Your task to perform on an android device: Clear all items from cart on bestbuy. Search for "corsair k70" on bestbuy, select the first entry, and add it to the cart. Image 0: 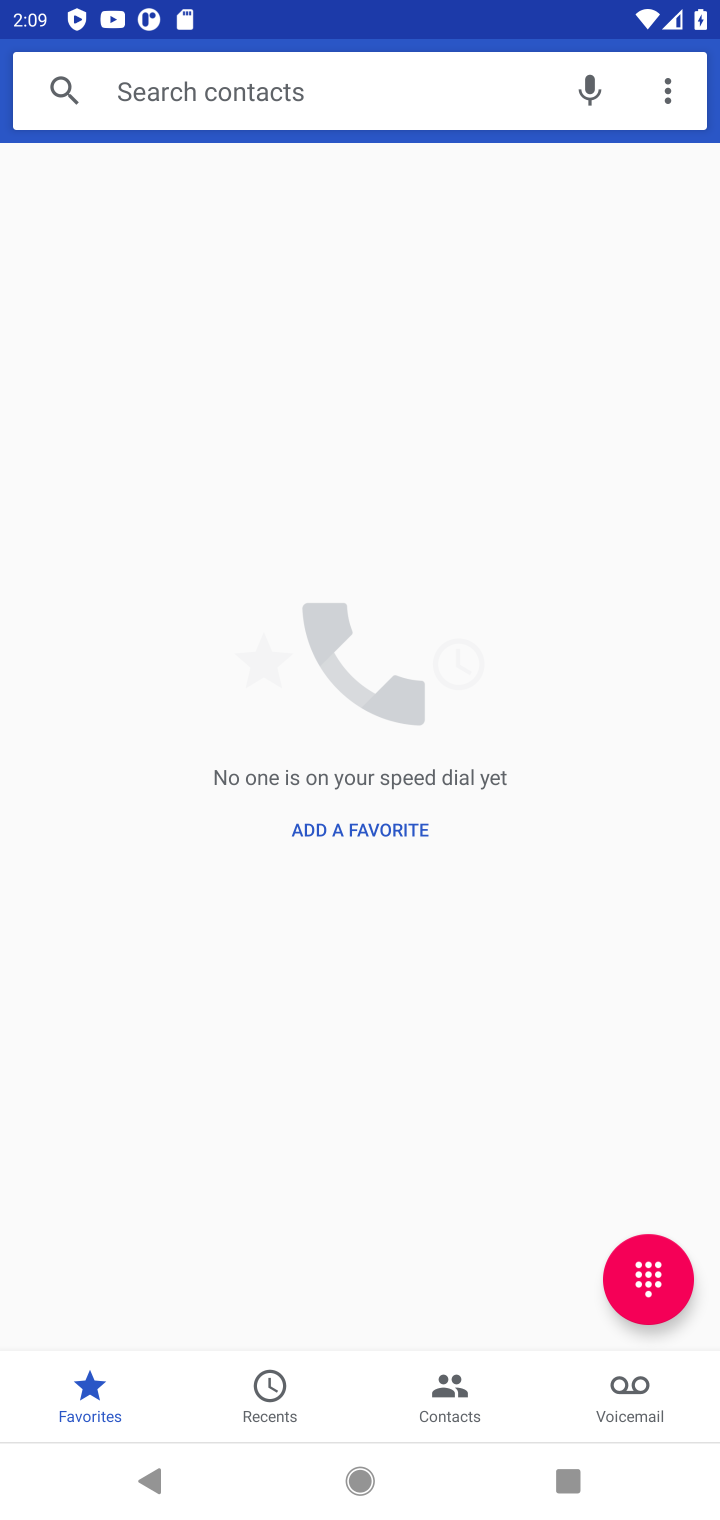
Step 0: press home button
Your task to perform on an android device: Clear all items from cart on bestbuy. Search for "corsair k70" on bestbuy, select the first entry, and add it to the cart. Image 1: 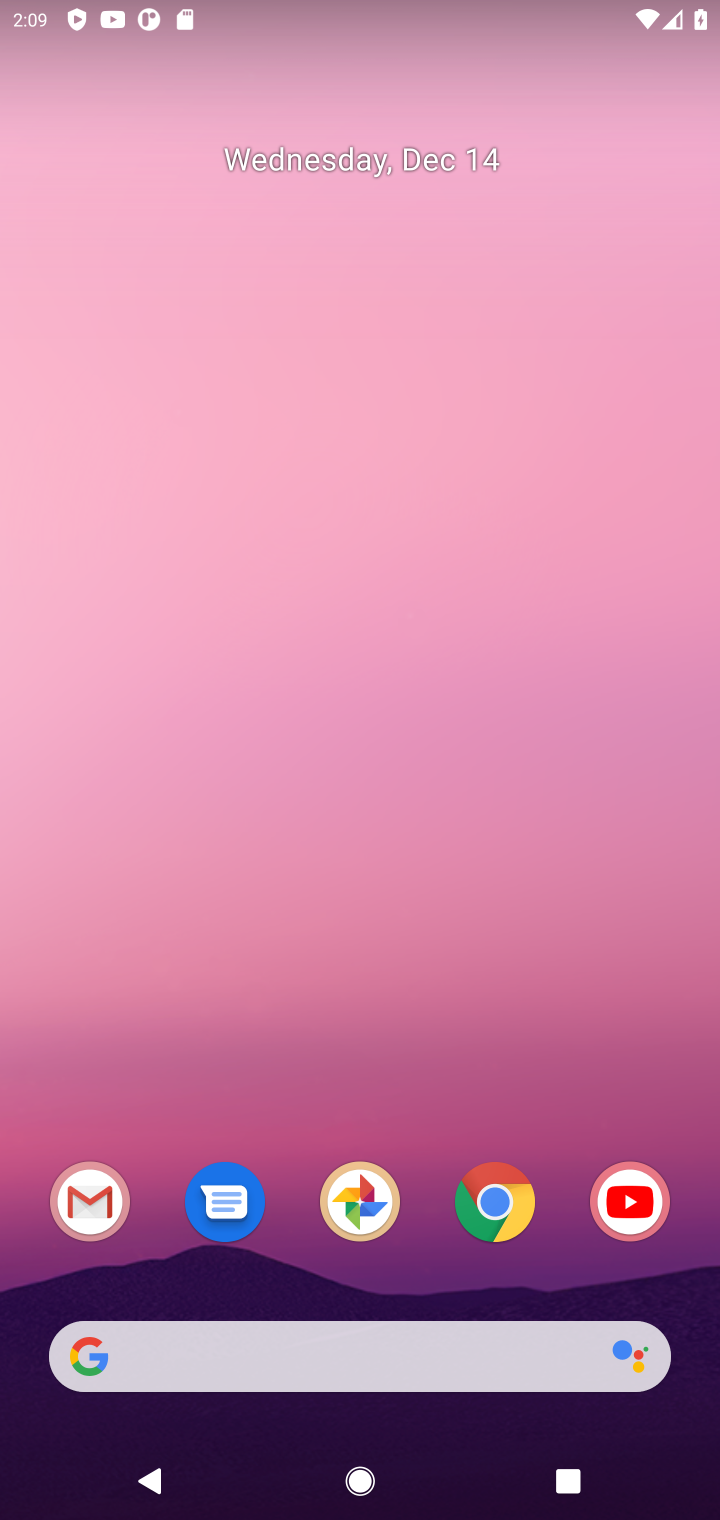
Step 1: click (486, 1187)
Your task to perform on an android device: Clear all items from cart on bestbuy. Search for "corsair k70" on bestbuy, select the first entry, and add it to the cart. Image 2: 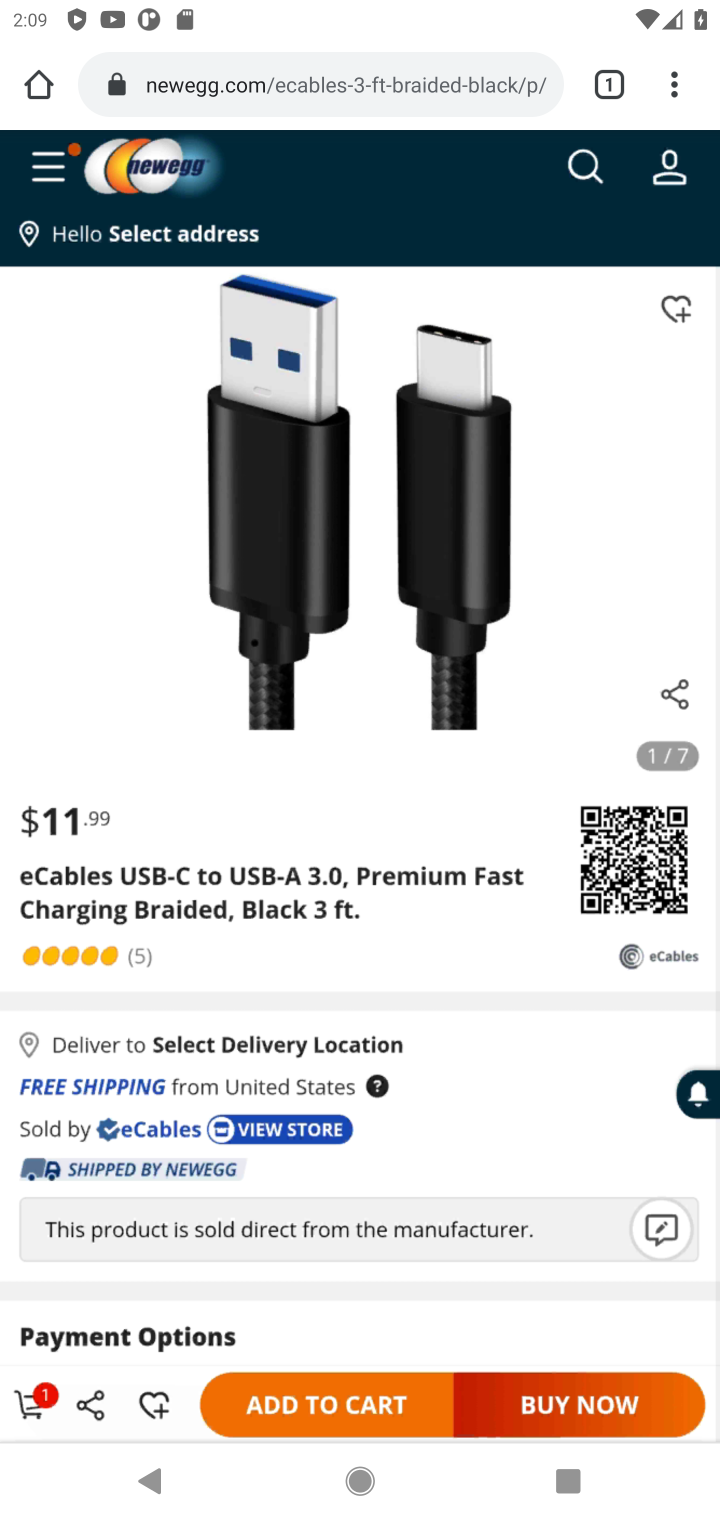
Step 2: click (327, 89)
Your task to perform on an android device: Clear all items from cart on bestbuy. Search for "corsair k70" on bestbuy, select the first entry, and add it to the cart. Image 3: 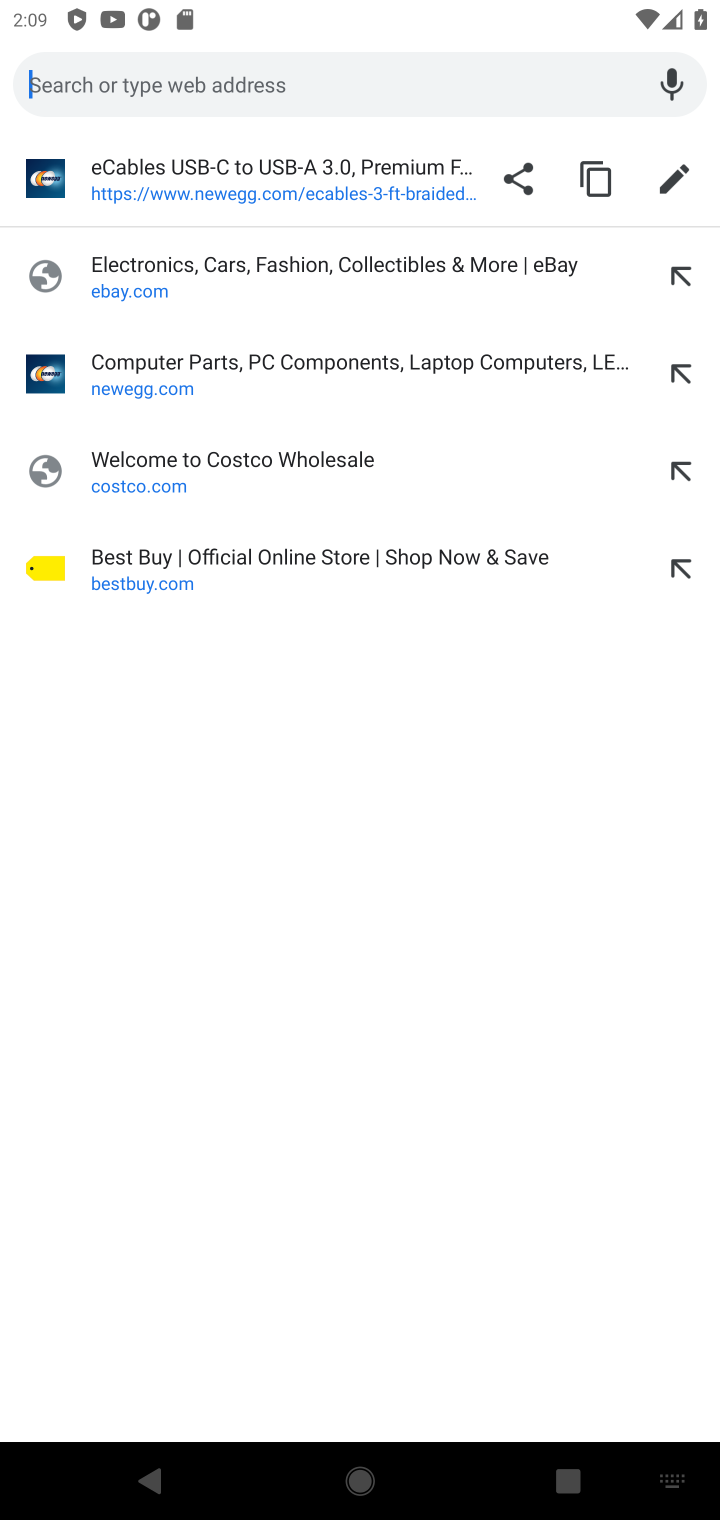
Step 3: click (194, 571)
Your task to perform on an android device: Clear all items from cart on bestbuy. Search for "corsair k70" on bestbuy, select the first entry, and add it to the cart. Image 4: 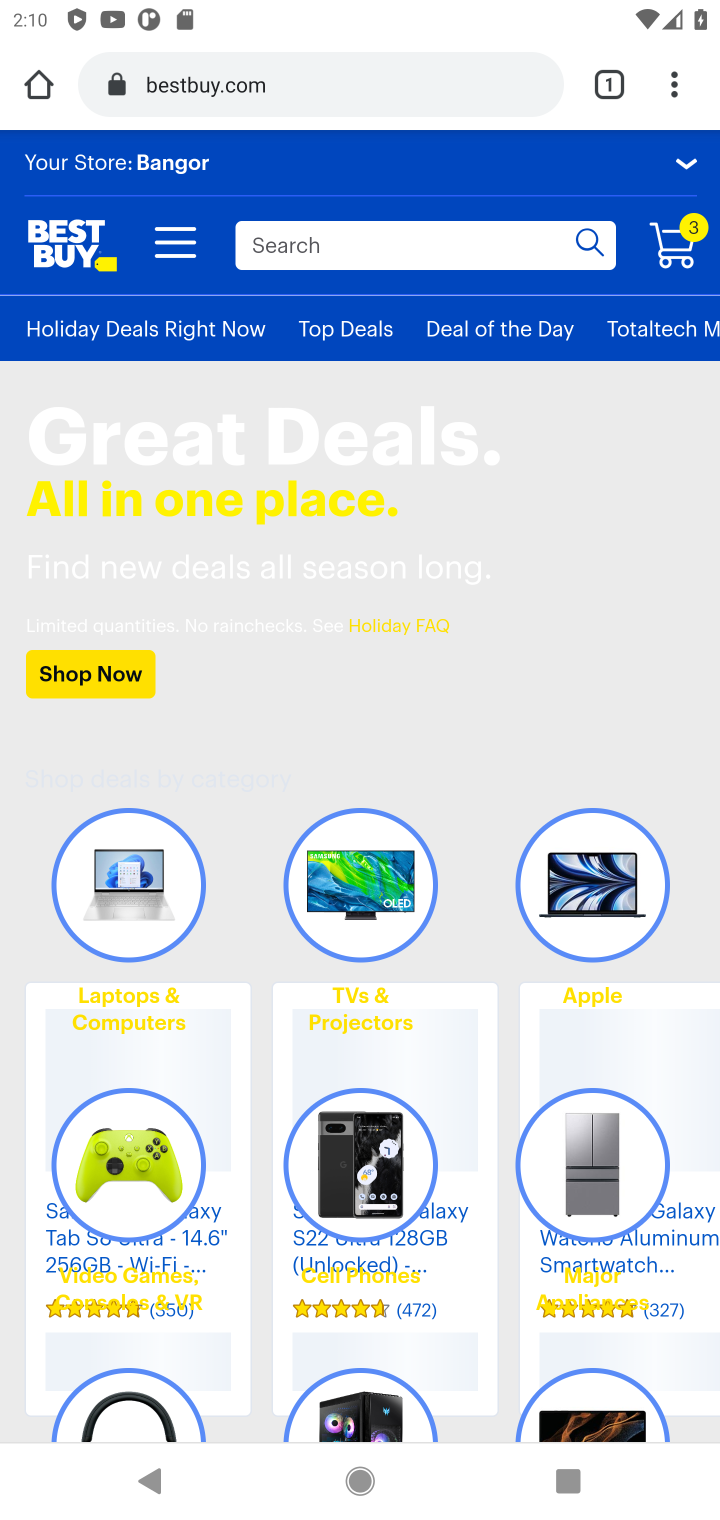
Step 4: click (672, 234)
Your task to perform on an android device: Clear all items from cart on bestbuy. Search for "corsair k70" on bestbuy, select the first entry, and add it to the cart. Image 5: 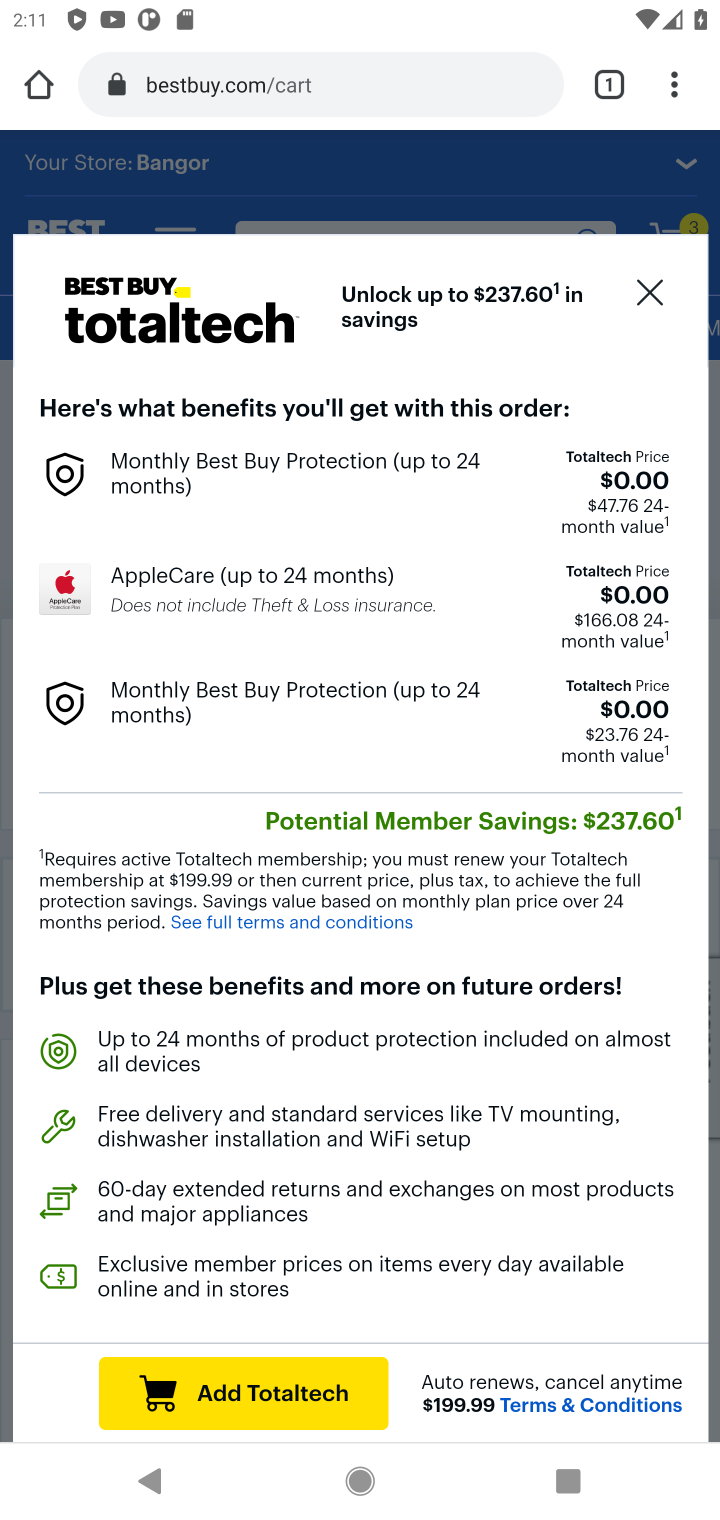
Step 5: click (649, 291)
Your task to perform on an android device: Clear all items from cart on bestbuy. Search for "corsair k70" on bestbuy, select the first entry, and add it to the cart. Image 6: 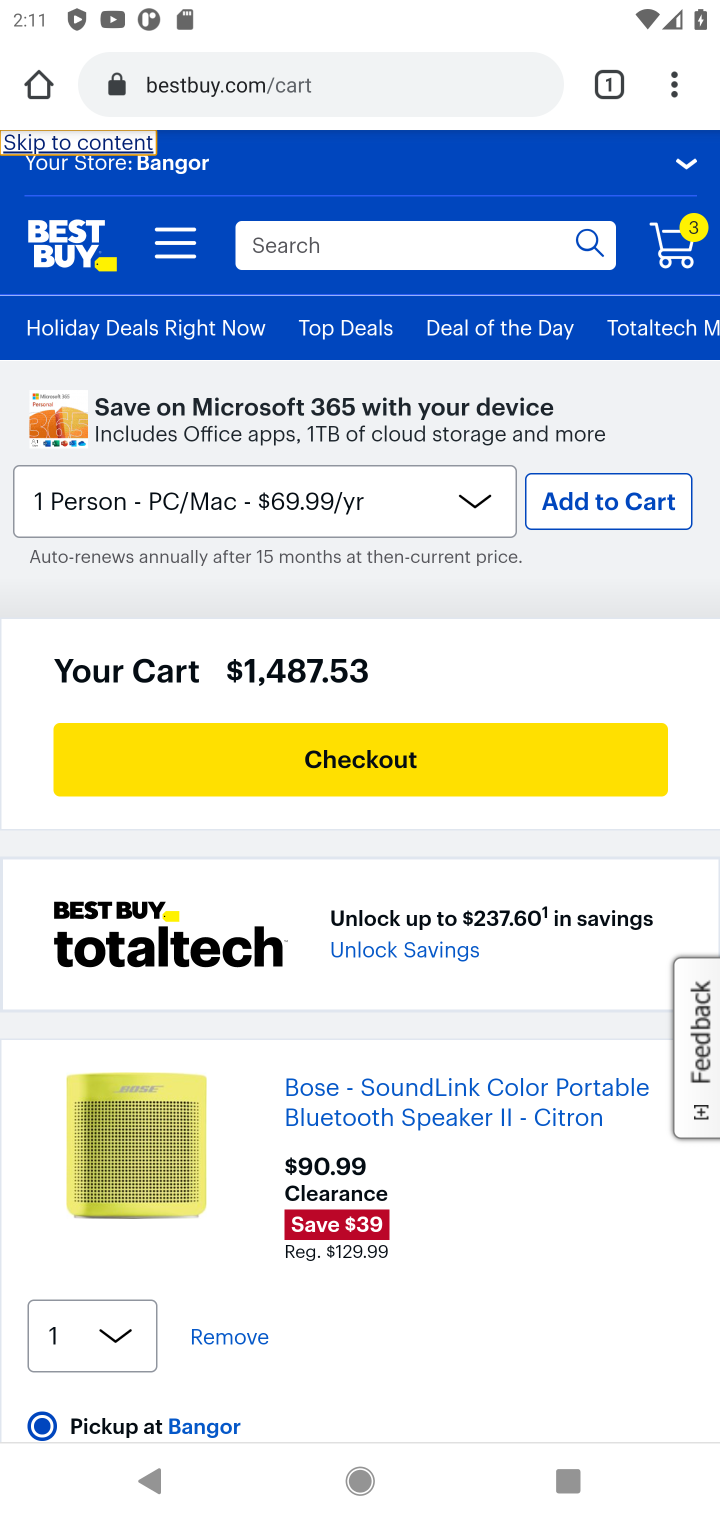
Step 6: click (239, 1334)
Your task to perform on an android device: Clear all items from cart on bestbuy. Search for "corsair k70" on bestbuy, select the first entry, and add it to the cart. Image 7: 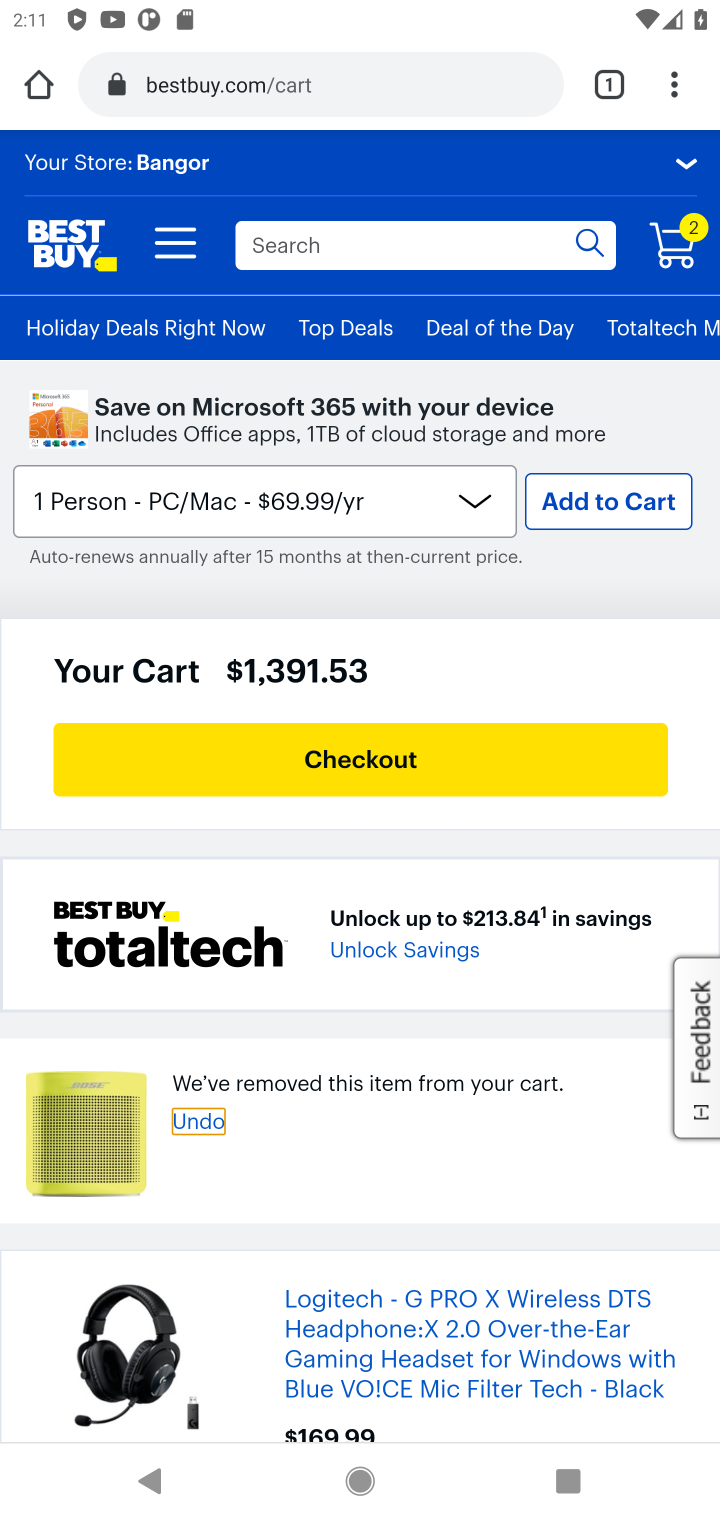
Step 7: drag from (464, 1114) to (399, 127)
Your task to perform on an android device: Clear all items from cart on bestbuy. Search for "corsair k70" on bestbuy, select the first entry, and add it to the cart. Image 8: 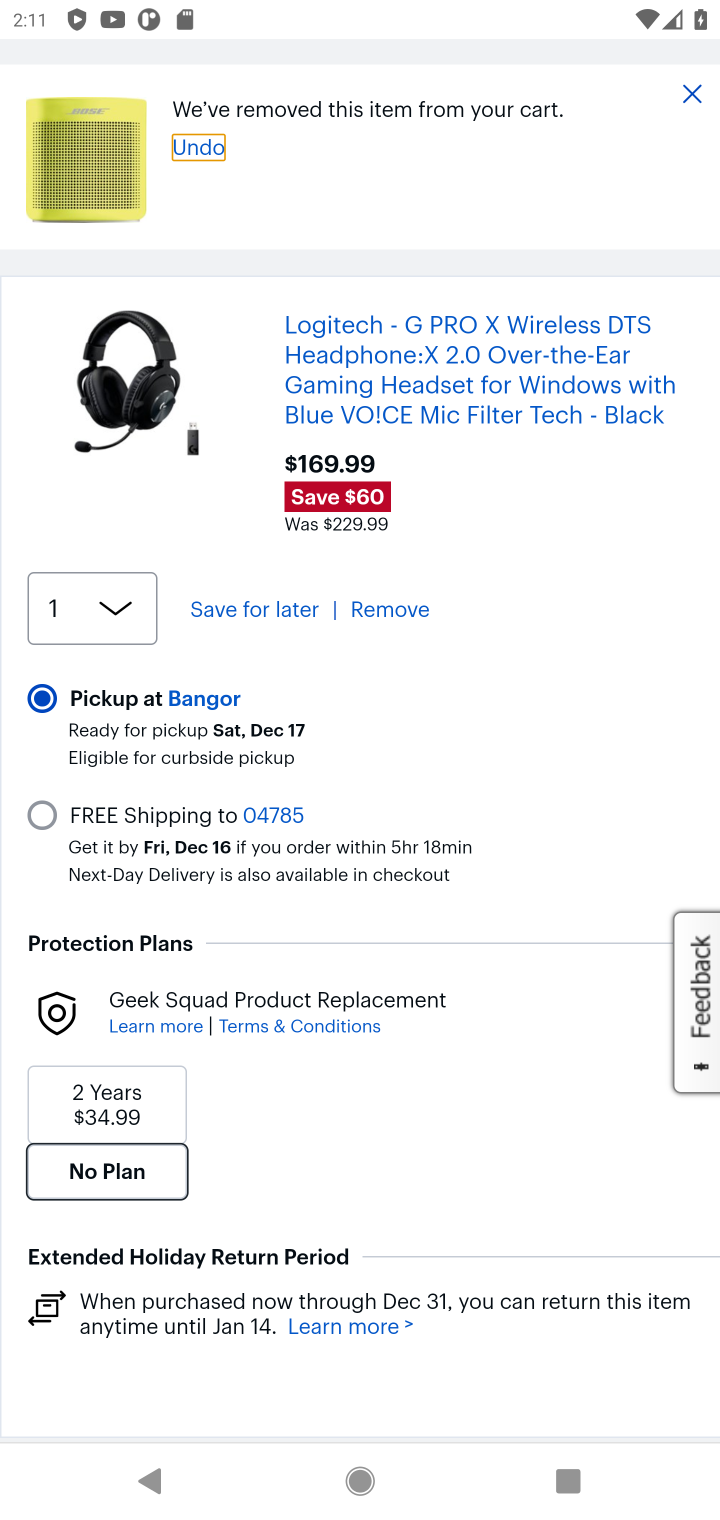
Step 8: click (380, 604)
Your task to perform on an android device: Clear all items from cart on bestbuy. Search for "corsair k70" on bestbuy, select the first entry, and add it to the cart. Image 9: 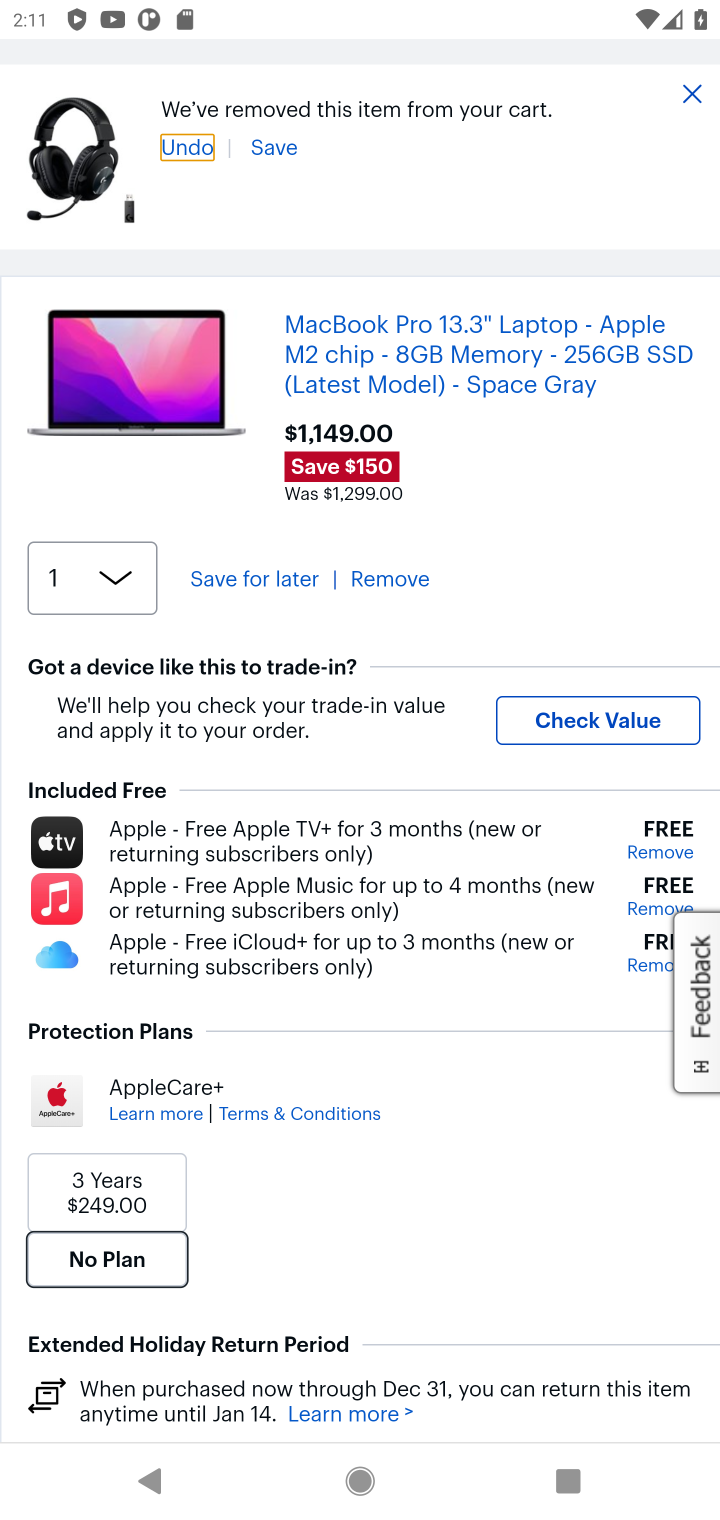
Step 9: click (393, 578)
Your task to perform on an android device: Clear all items from cart on bestbuy. Search for "corsair k70" on bestbuy, select the first entry, and add it to the cart. Image 10: 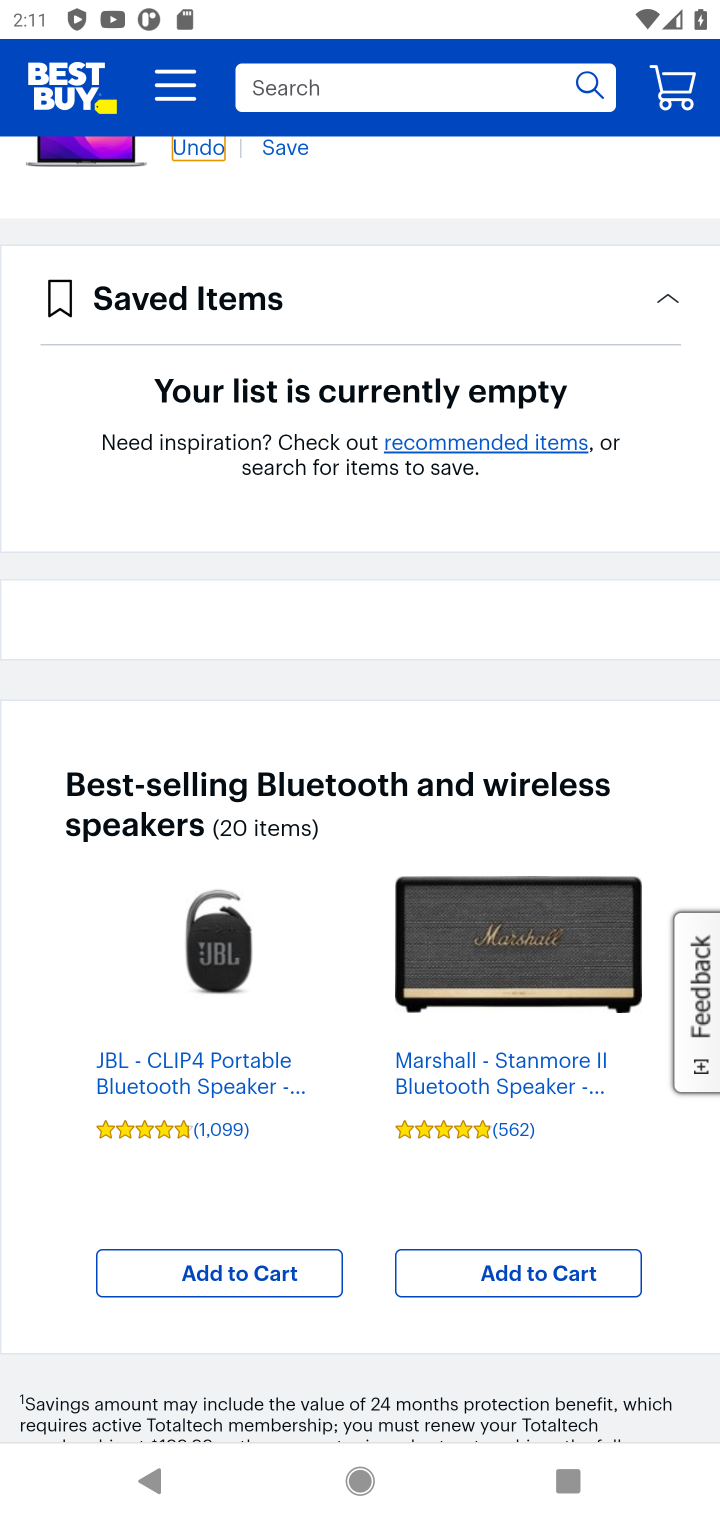
Step 10: click (428, 93)
Your task to perform on an android device: Clear all items from cart on bestbuy. Search for "corsair k70" on bestbuy, select the first entry, and add it to the cart. Image 11: 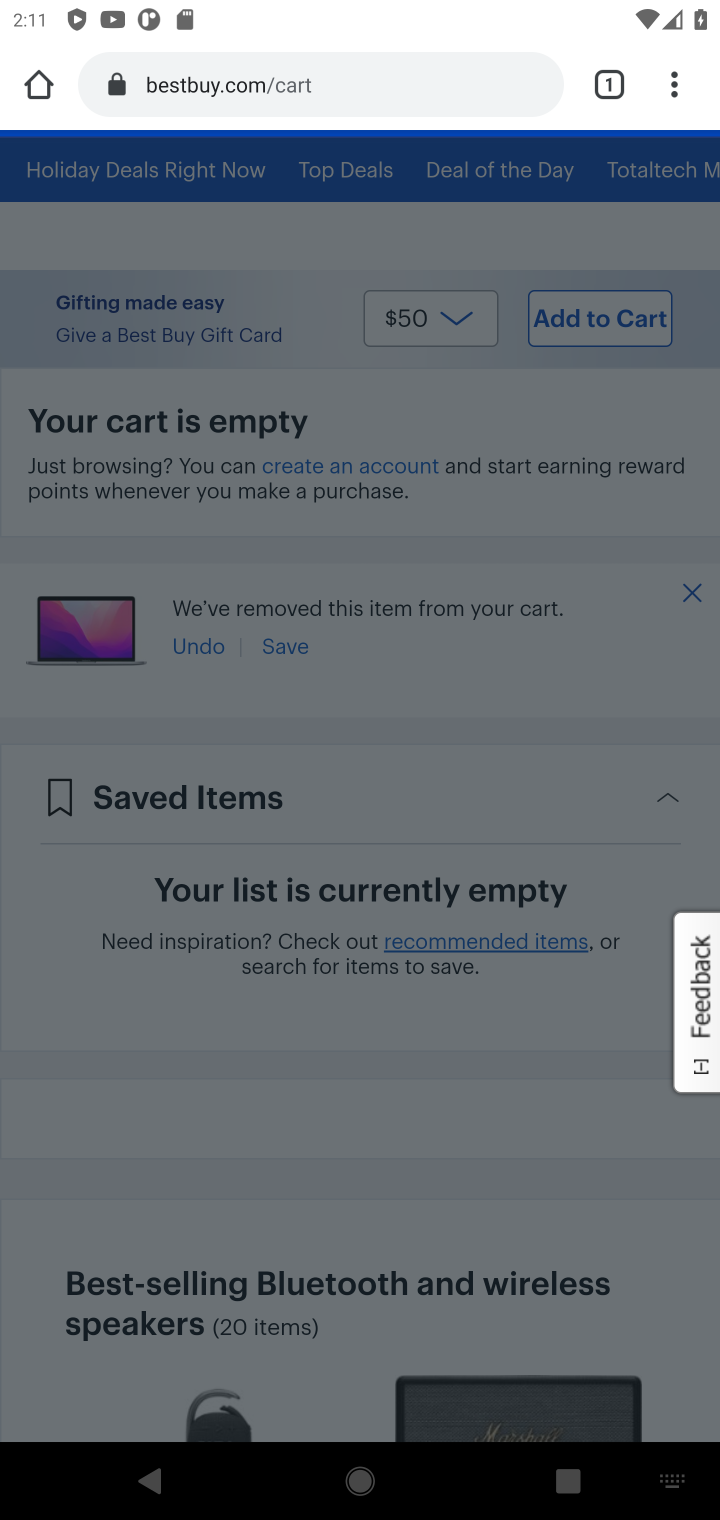
Step 11: type "corsair k70"
Your task to perform on an android device: Clear all items from cart on bestbuy. Search for "corsair k70" on bestbuy, select the first entry, and add it to the cart. Image 12: 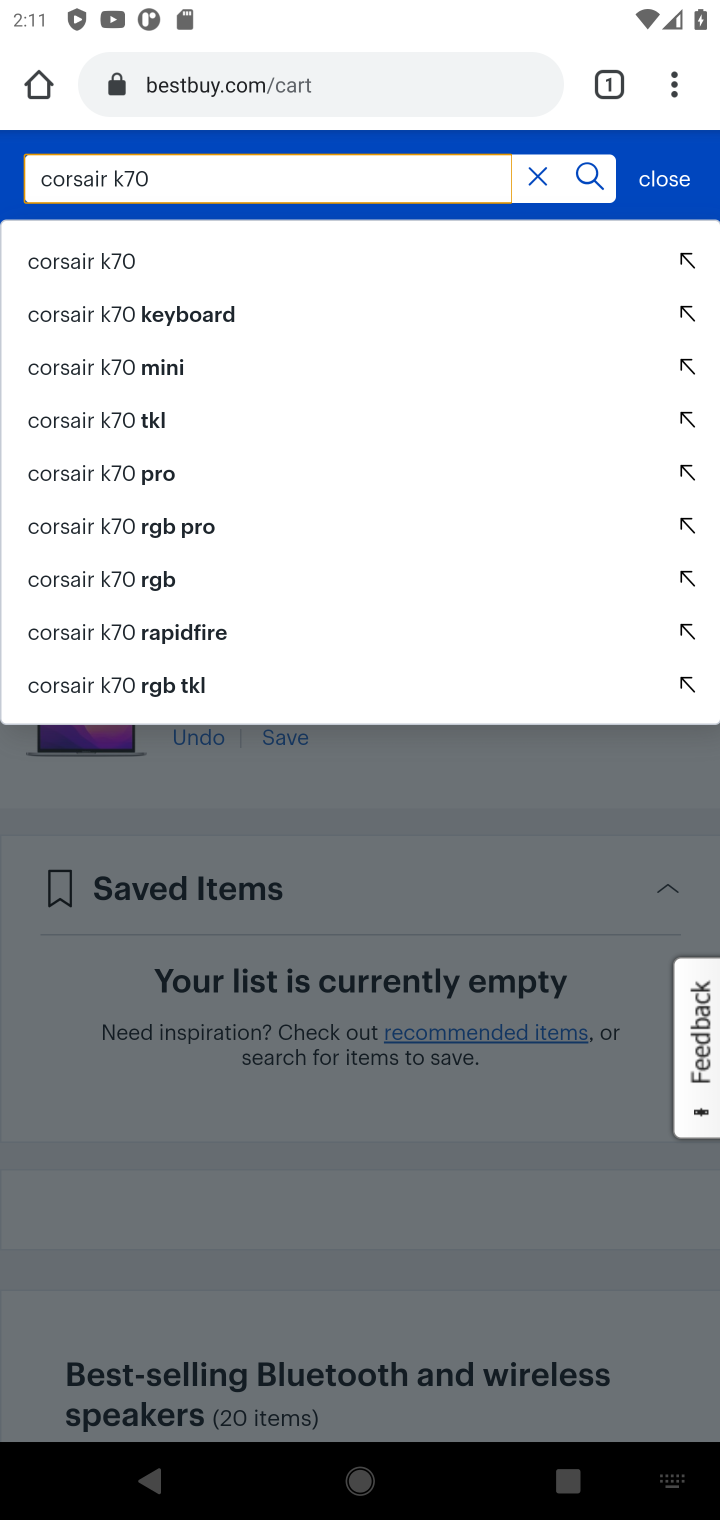
Step 12: click (114, 260)
Your task to perform on an android device: Clear all items from cart on bestbuy. Search for "corsair k70" on bestbuy, select the first entry, and add it to the cart. Image 13: 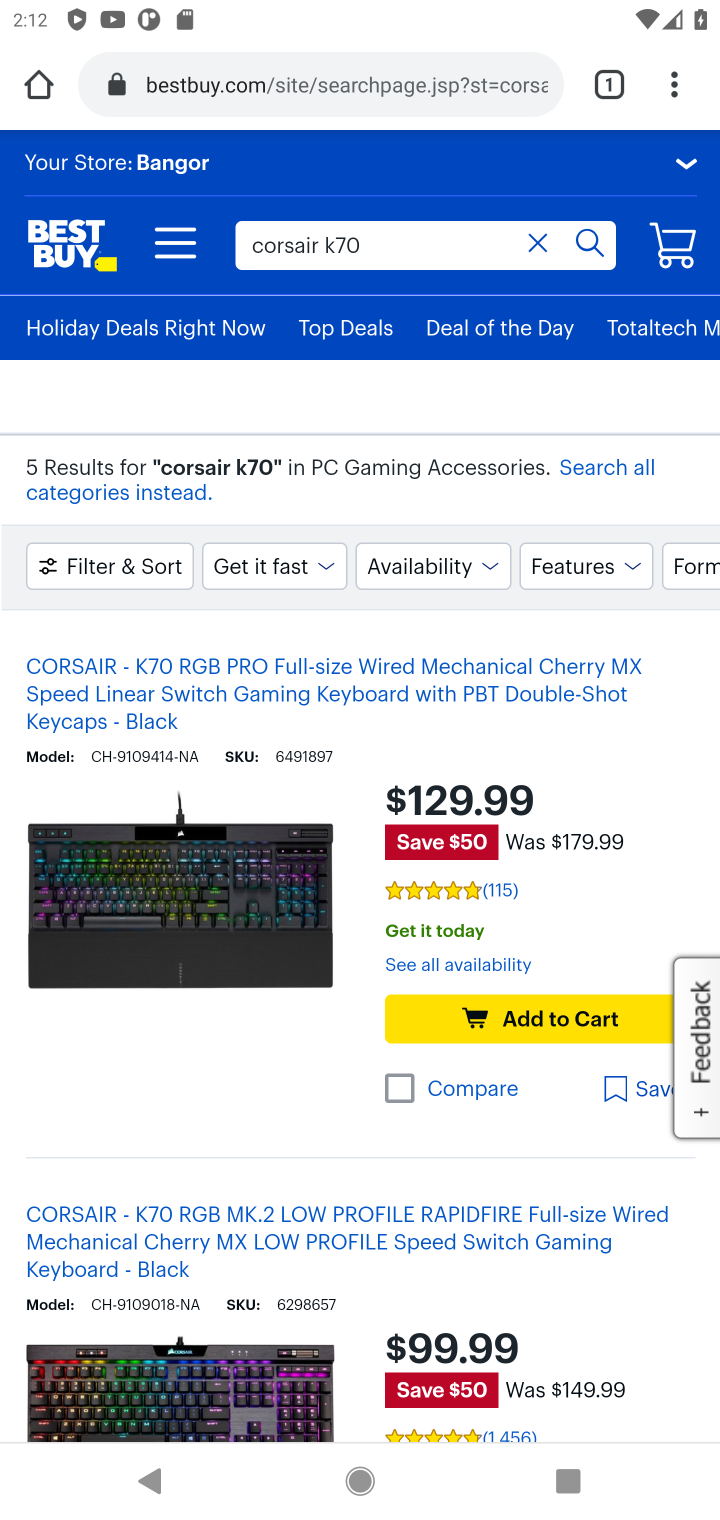
Step 13: click (571, 1014)
Your task to perform on an android device: Clear all items from cart on bestbuy. Search for "corsair k70" on bestbuy, select the first entry, and add it to the cart. Image 14: 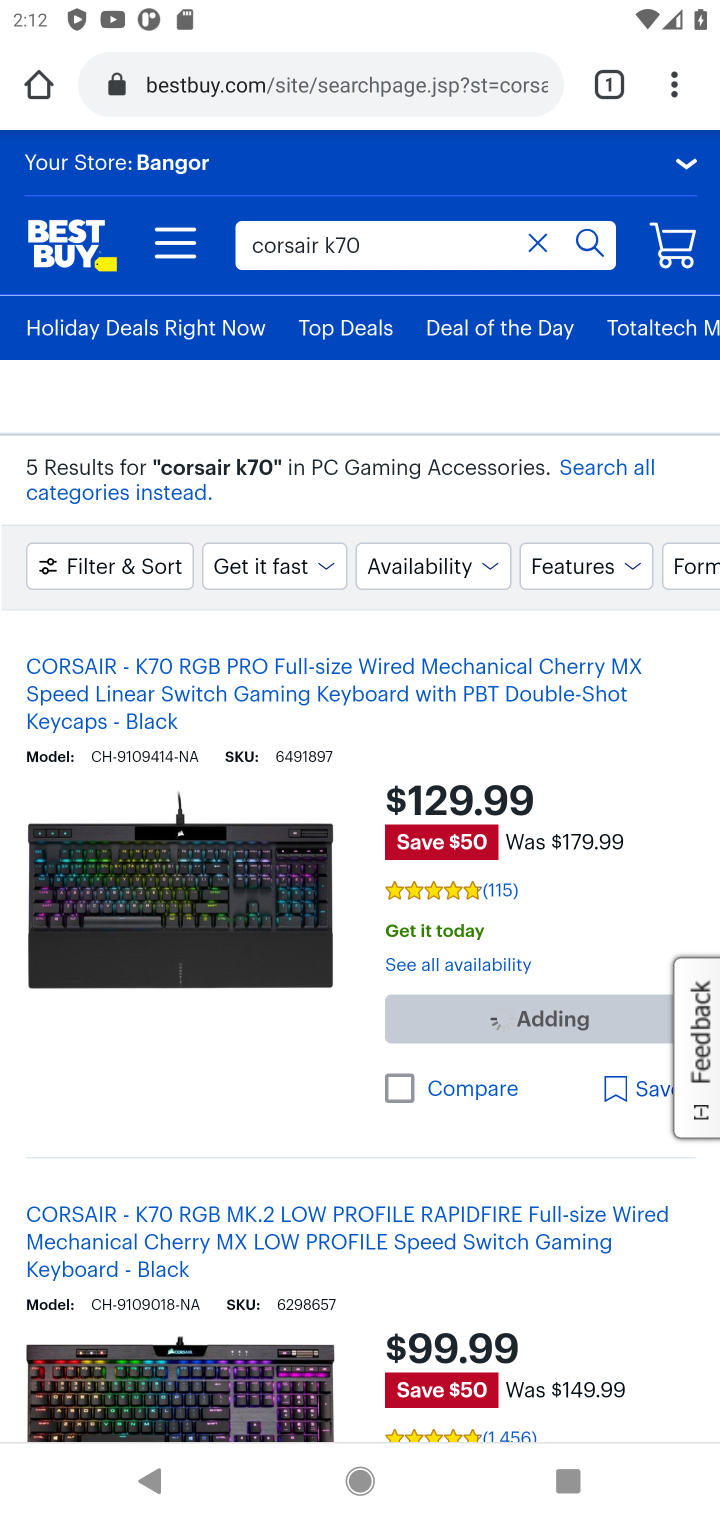
Step 14: task complete